Your task to perform on an android device: open chrome privacy settings Image 0: 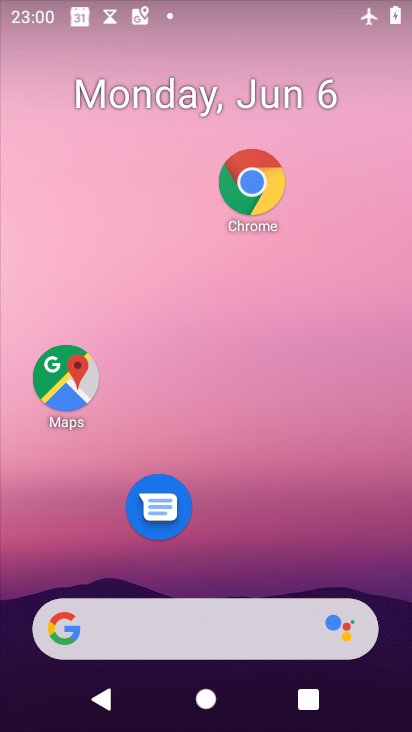
Step 0: click (249, 177)
Your task to perform on an android device: open chrome privacy settings Image 1: 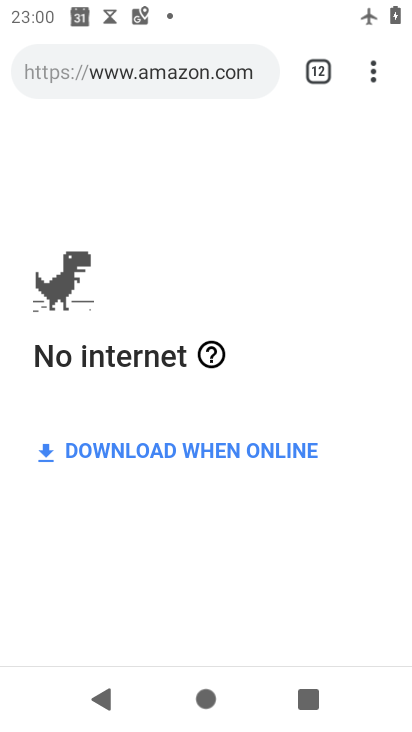
Step 1: click (368, 75)
Your task to perform on an android device: open chrome privacy settings Image 2: 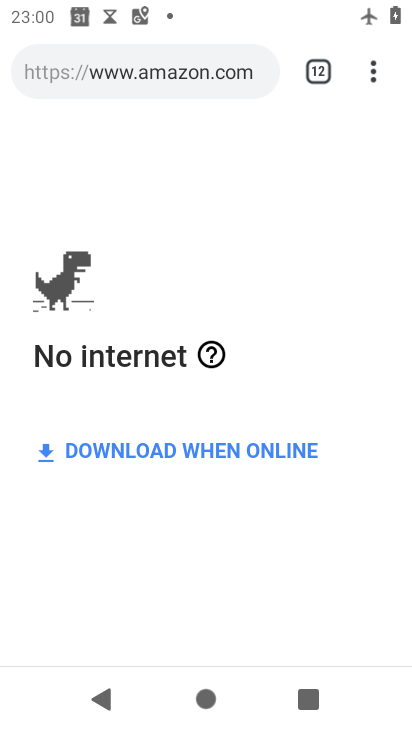
Step 2: click (369, 60)
Your task to perform on an android device: open chrome privacy settings Image 3: 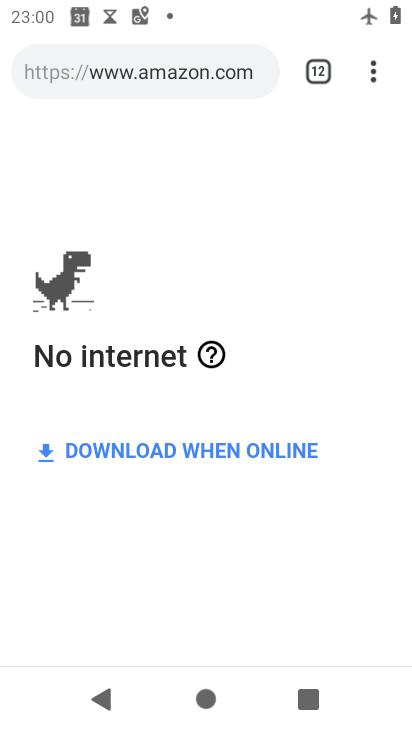
Step 3: click (373, 77)
Your task to perform on an android device: open chrome privacy settings Image 4: 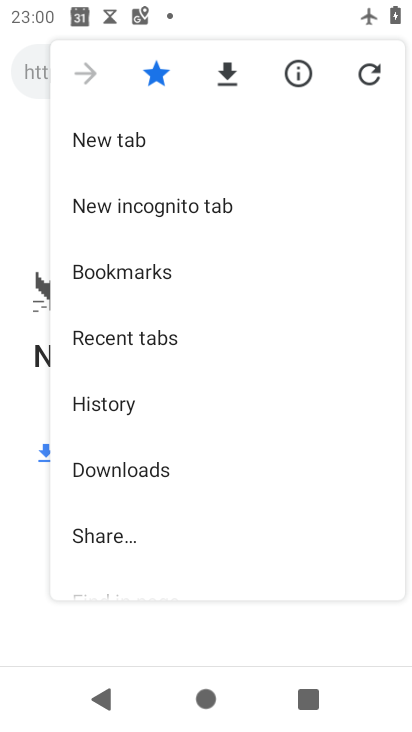
Step 4: drag from (183, 509) to (233, 242)
Your task to perform on an android device: open chrome privacy settings Image 5: 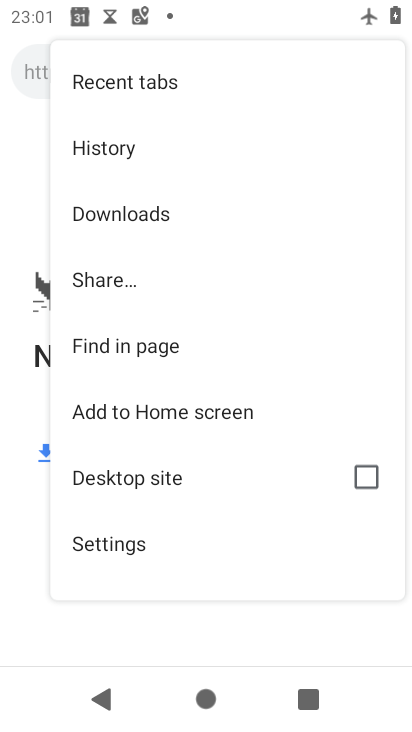
Step 5: click (216, 479)
Your task to perform on an android device: open chrome privacy settings Image 6: 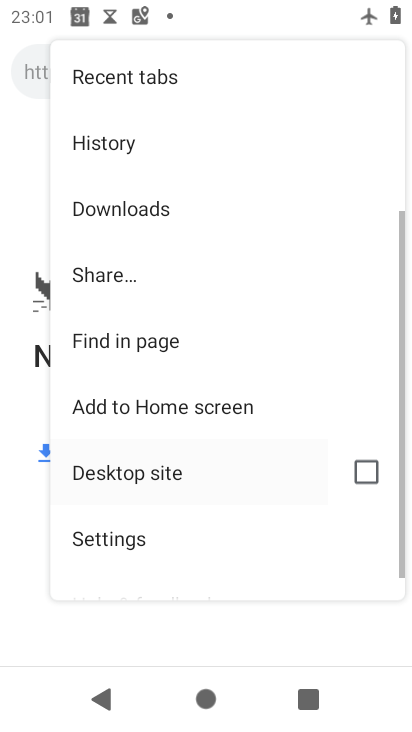
Step 6: drag from (221, 436) to (232, 190)
Your task to perform on an android device: open chrome privacy settings Image 7: 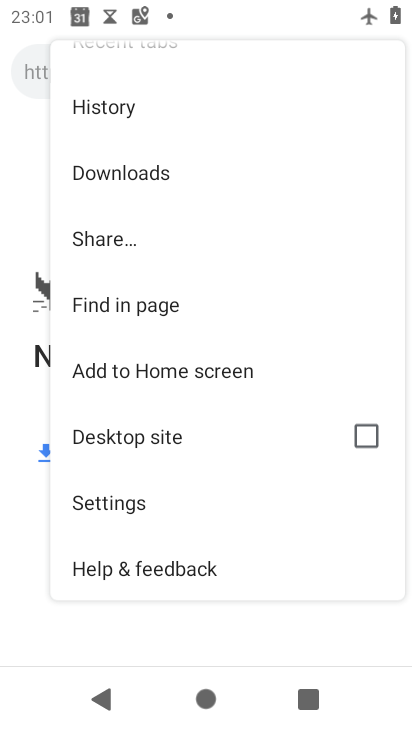
Step 7: click (125, 501)
Your task to perform on an android device: open chrome privacy settings Image 8: 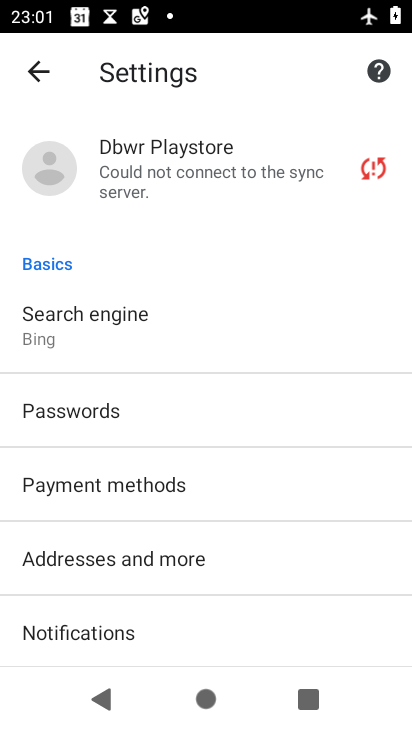
Step 8: drag from (186, 585) to (246, 307)
Your task to perform on an android device: open chrome privacy settings Image 9: 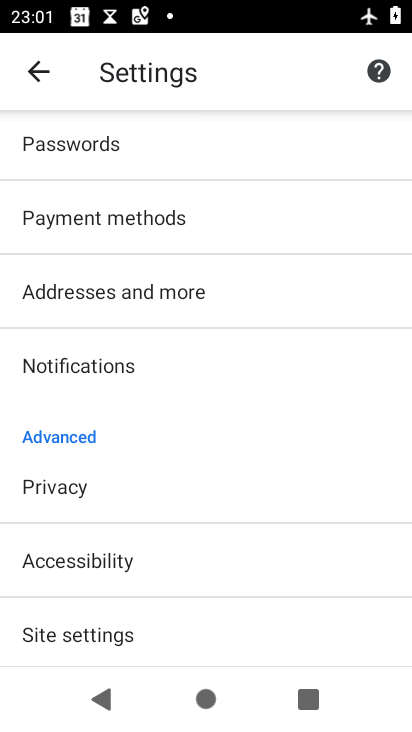
Step 9: click (106, 478)
Your task to perform on an android device: open chrome privacy settings Image 10: 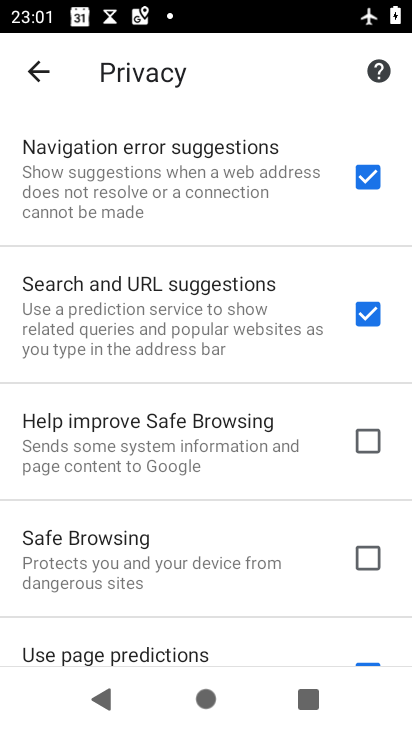
Step 10: task complete